Your task to perform on an android device: change text size in settings app Image 0: 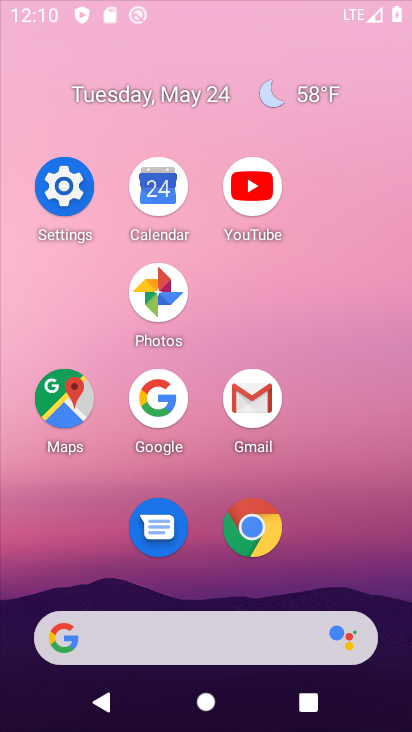
Step 0: press back button
Your task to perform on an android device: change text size in settings app Image 1: 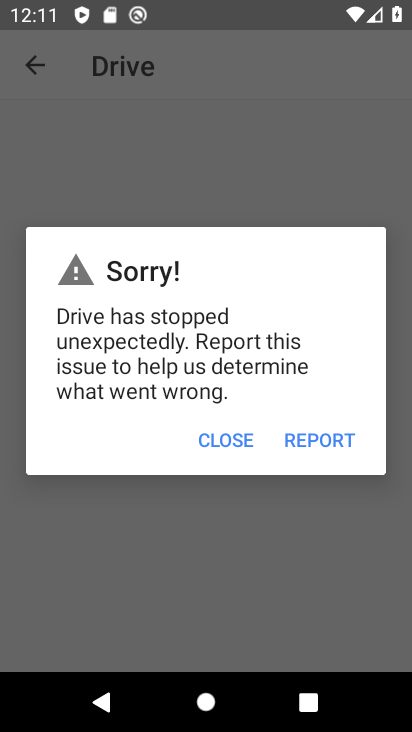
Step 1: press home button
Your task to perform on an android device: change text size in settings app Image 2: 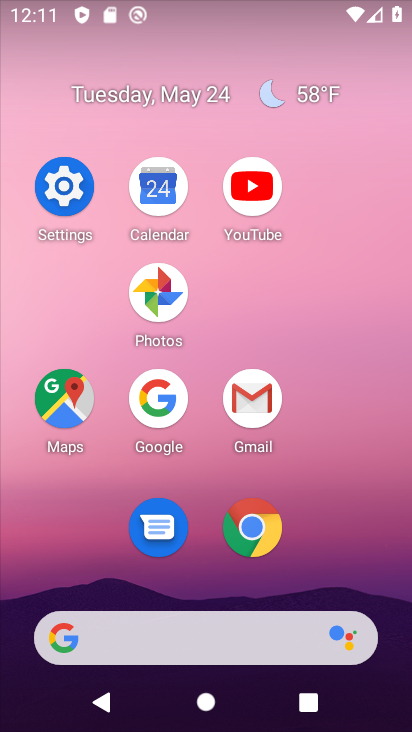
Step 2: click (79, 167)
Your task to perform on an android device: change text size in settings app Image 3: 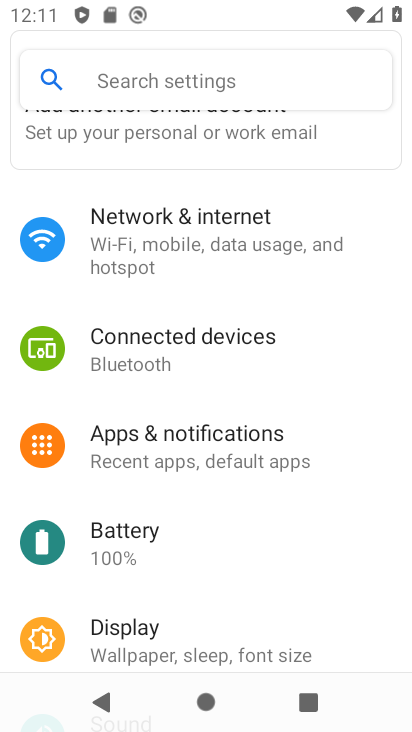
Step 3: click (268, 651)
Your task to perform on an android device: change text size in settings app Image 4: 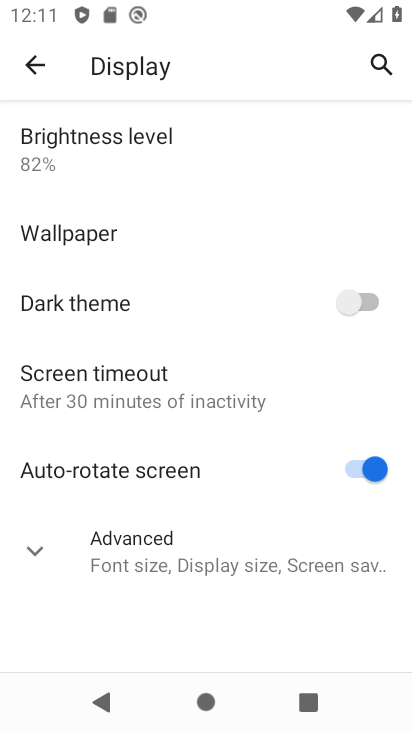
Step 4: click (247, 582)
Your task to perform on an android device: change text size in settings app Image 5: 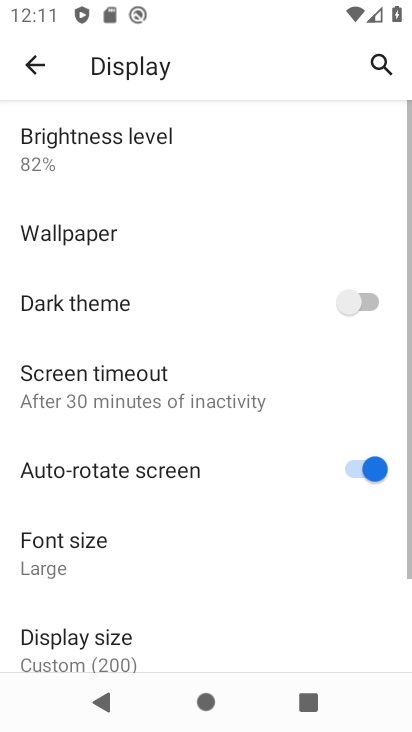
Step 5: click (247, 582)
Your task to perform on an android device: change text size in settings app Image 6: 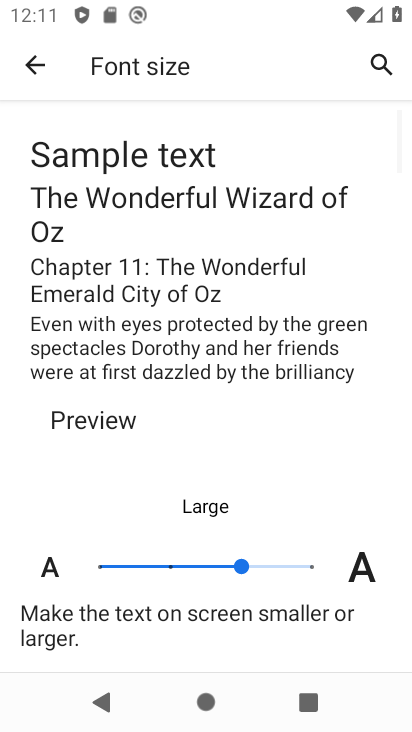
Step 6: click (177, 568)
Your task to perform on an android device: change text size in settings app Image 7: 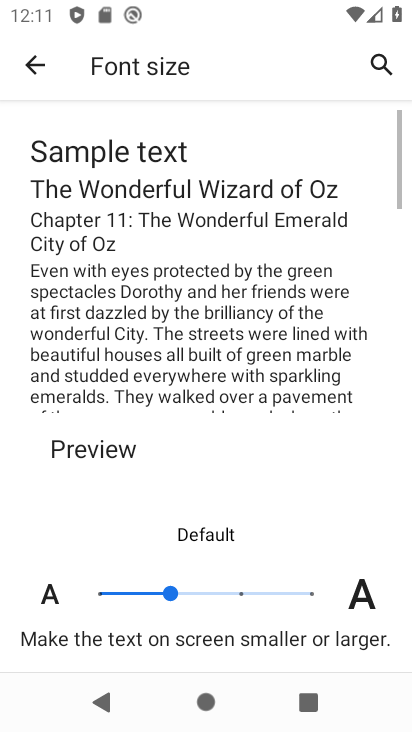
Step 7: task complete